Your task to perform on an android device: delete the emails in spam in the gmail app Image 0: 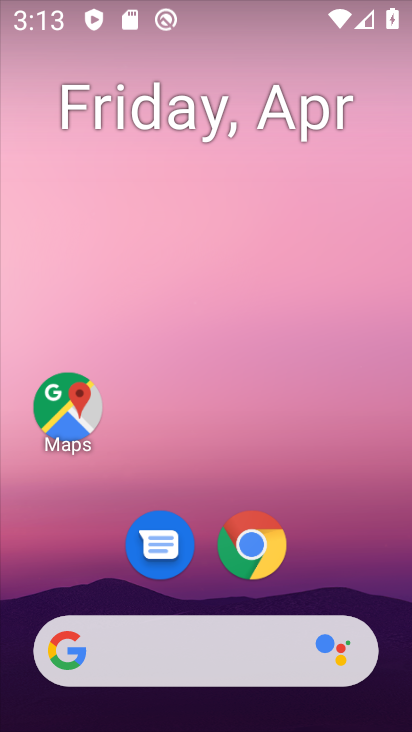
Step 0: drag from (382, 635) to (331, 65)
Your task to perform on an android device: delete the emails in spam in the gmail app Image 1: 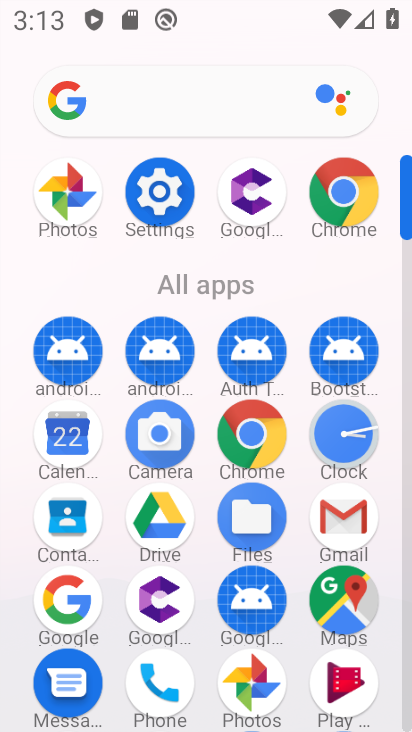
Step 1: click (405, 690)
Your task to perform on an android device: delete the emails in spam in the gmail app Image 2: 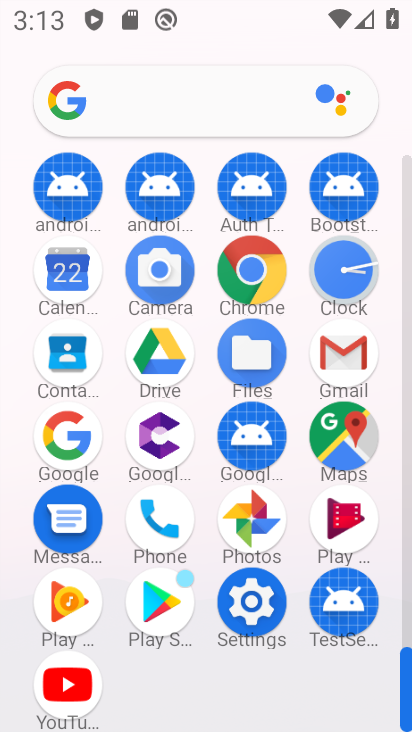
Step 2: click (341, 354)
Your task to perform on an android device: delete the emails in spam in the gmail app Image 3: 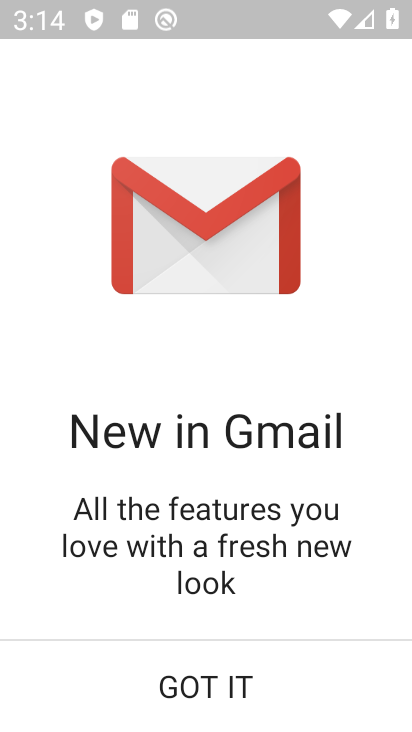
Step 3: click (200, 696)
Your task to perform on an android device: delete the emails in spam in the gmail app Image 4: 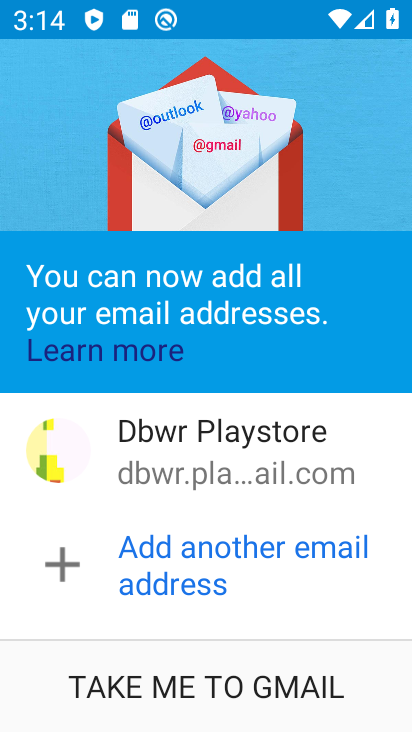
Step 4: click (200, 696)
Your task to perform on an android device: delete the emails in spam in the gmail app Image 5: 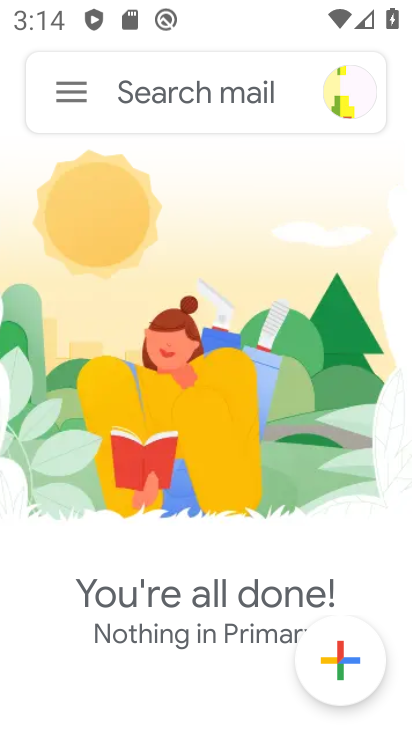
Step 5: click (69, 99)
Your task to perform on an android device: delete the emails in spam in the gmail app Image 6: 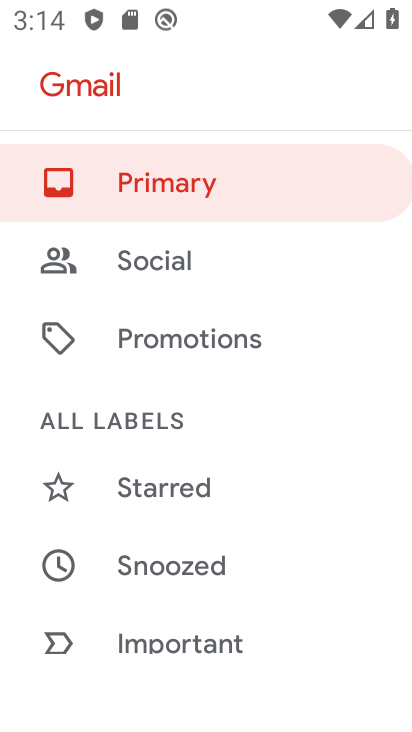
Step 6: drag from (338, 660) to (366, 256)
Your task to perform on an android device: delete the emails in spam in the gmail app Image 7: 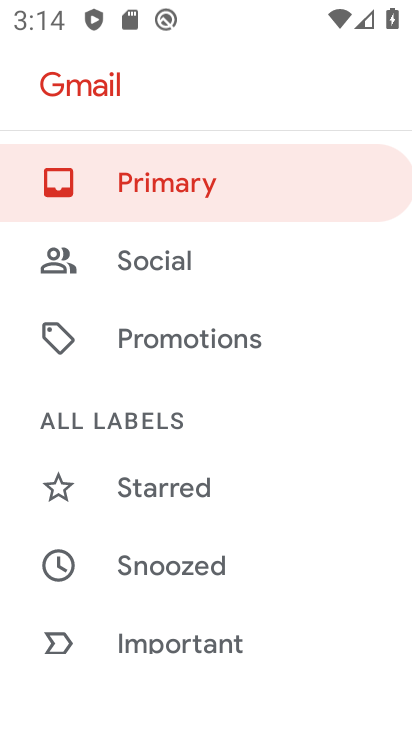
Step 7: drag from (273, 649) to (304, 218)
Your task to perform on an android device: delete the emails in spam in the gmail app Image 8: 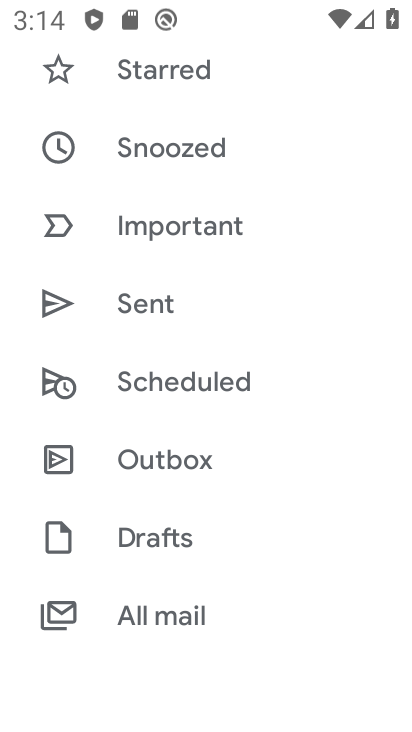
Step 8: drag from (269, 618) to (297, 188)
Your task to perform on an android device: delete the emails in spam in the gmail app Image 9: 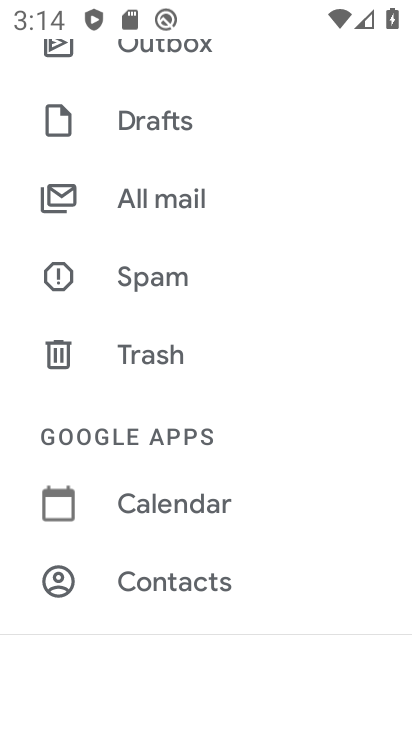
Step 9: click (161, 277)
Your task to perform on an android device: delete the emails in spam in the gmail app Image 10: 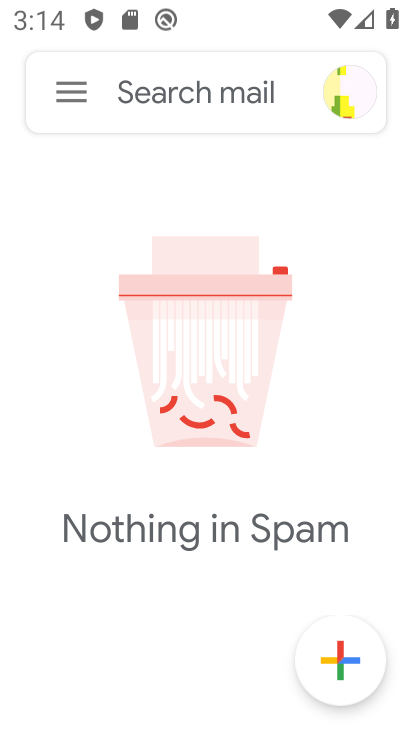
Step 10: task complete